Your task to perform on an android device: What's on my calendar today? Image 0: 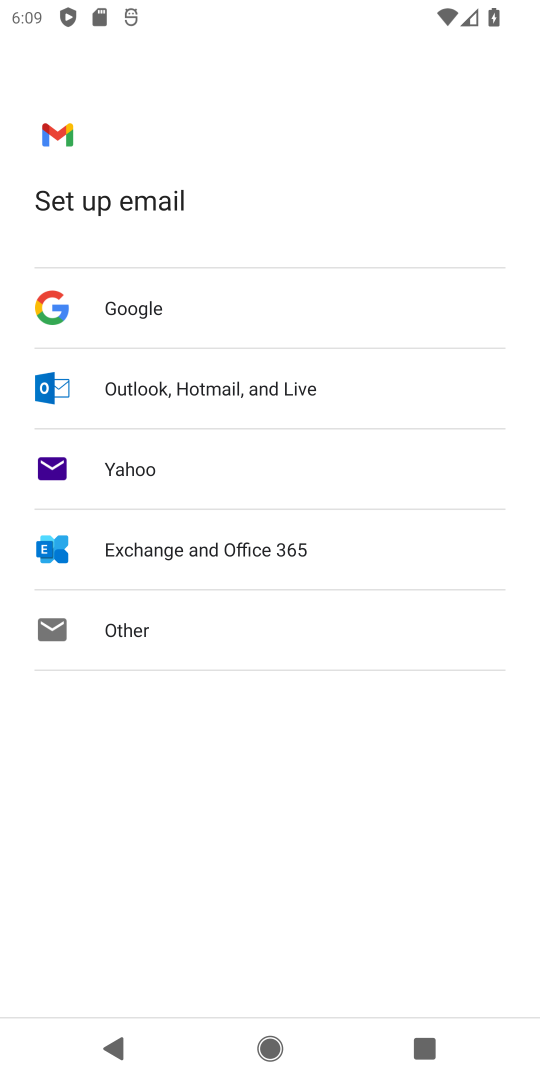
Step 0: press home button
Your task to perform on an android device: What's on my calendar today? Image 1: 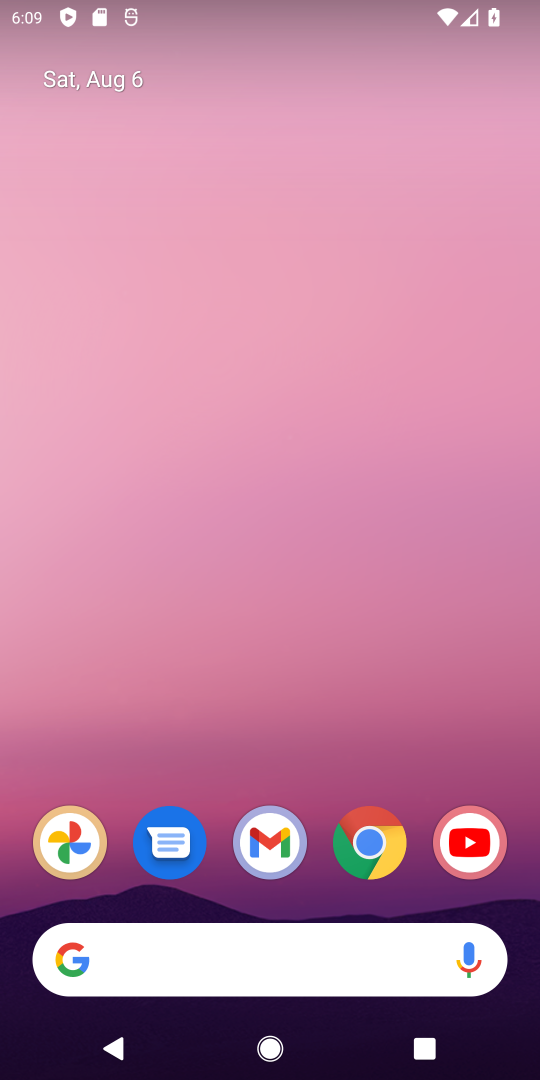
Step 1: drag from (176, 955) to (174, 95)
Your task to perform on an android device: What's on my calendar today? Image 2: 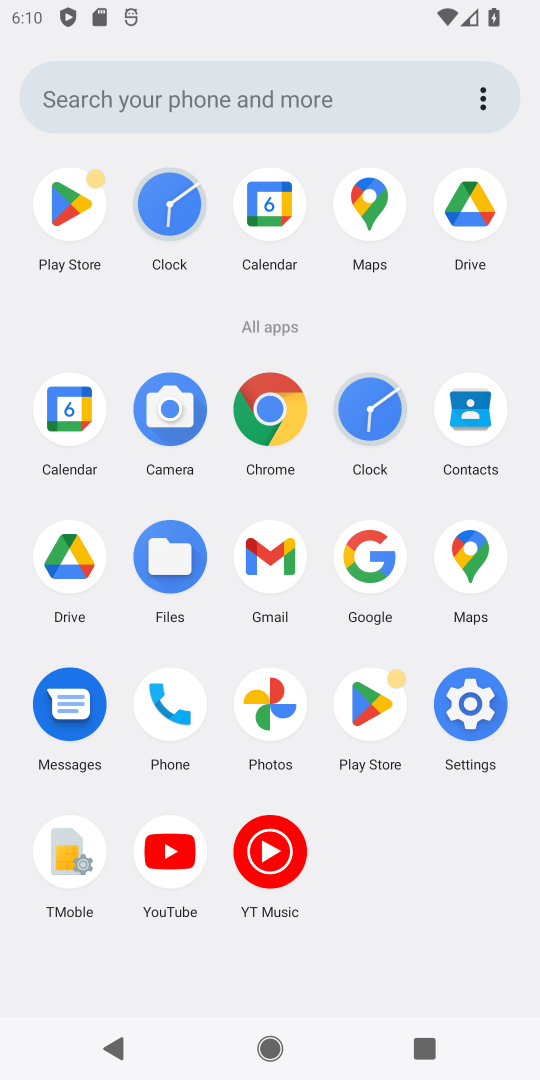
Step 2: click (67, 416)
Your task to perform on an android device: What's on my calendar today? Image 3: 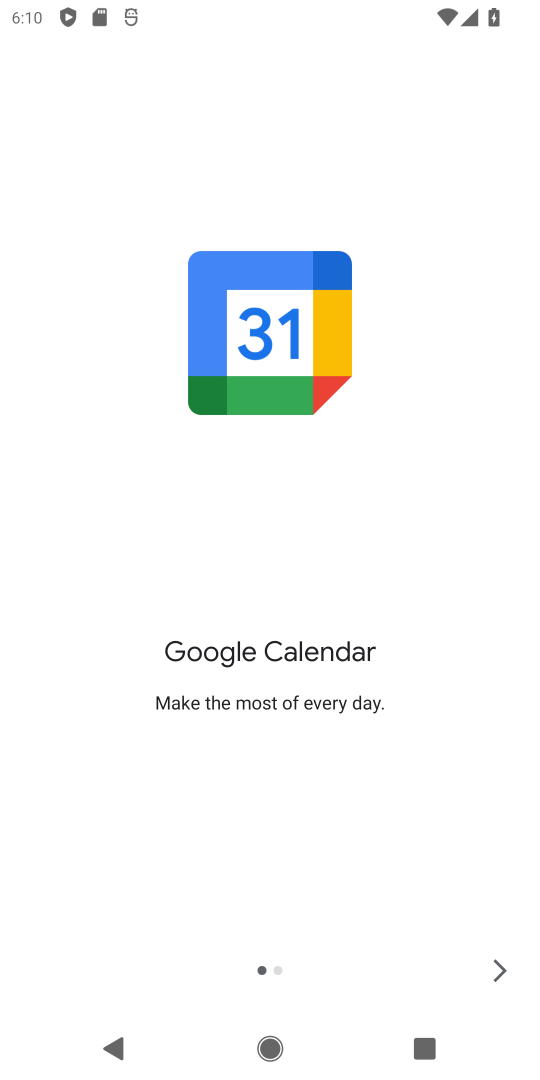
Step 3: click (504, 966)
Your task to perform on an android device: What's on my calendar today? Image 4: 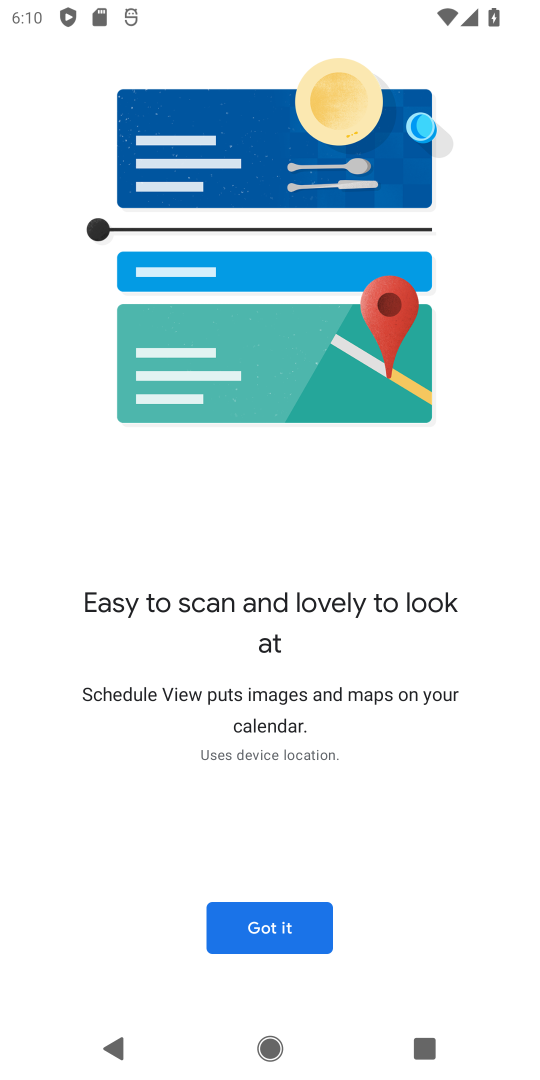
Step 4: click (284, 934)
Your task to perform on an android device: What's on my calendar today? Image 5: 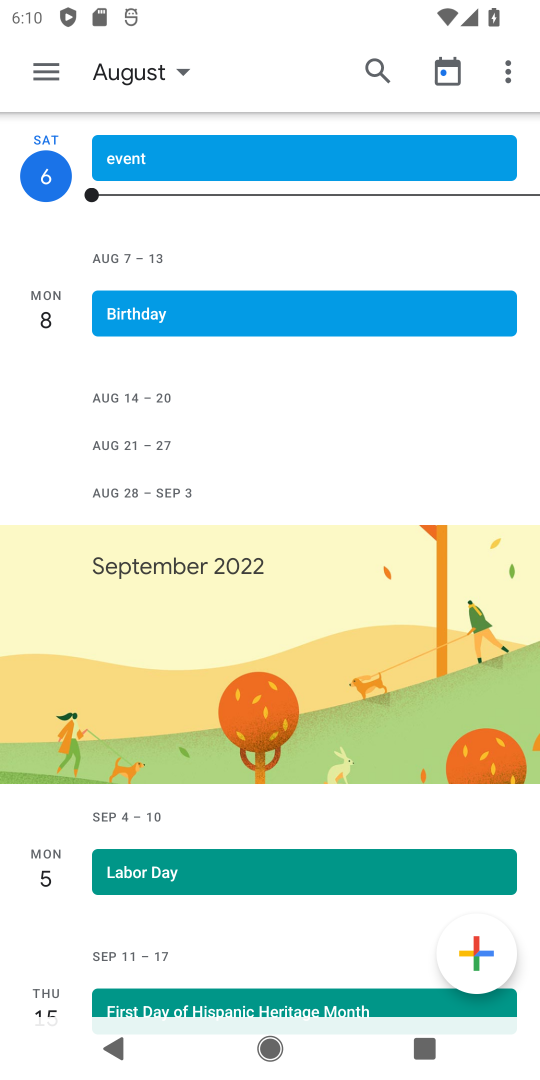
Step 5: task complete